Your task to perform on an android device: Find coffee shops on Maps Image 0: 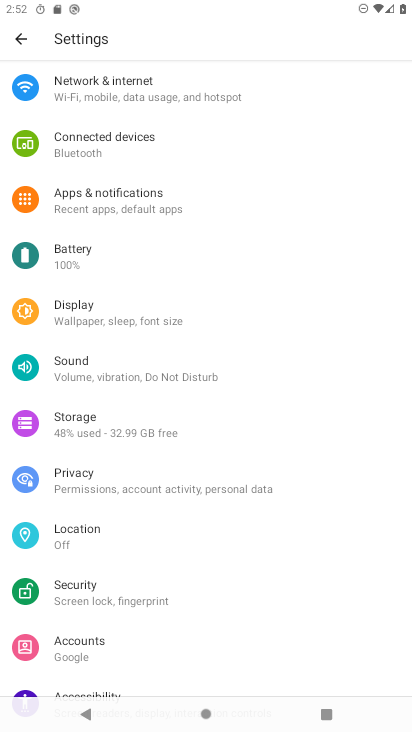
Step 0: click (207, 713)
Your task to perform on an android device: Find coffee shops on Maps Image 1: 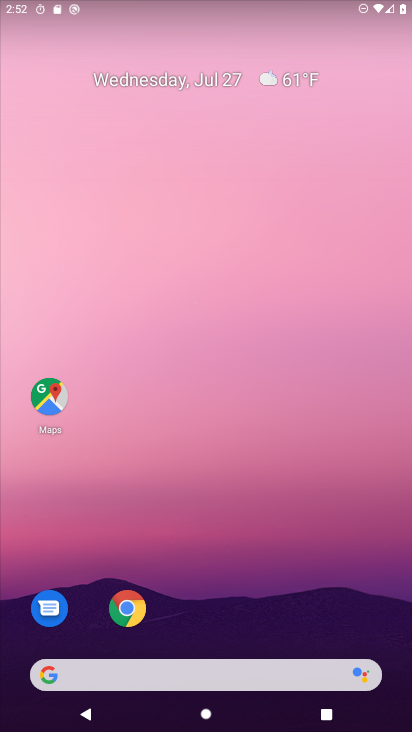
Step 1: click (55, 398)
Your task to perform on an android device: Find coffee shops on Maps Image 2: 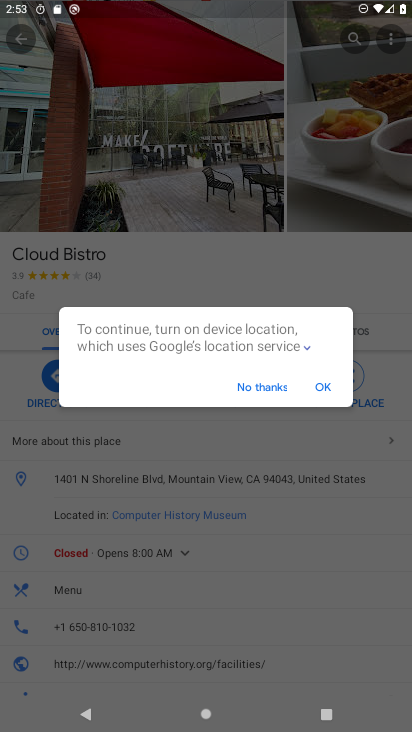
Step 2: click (272, 387)
Your task to perform on an android device: Find coffee shops on Maps Image 3: 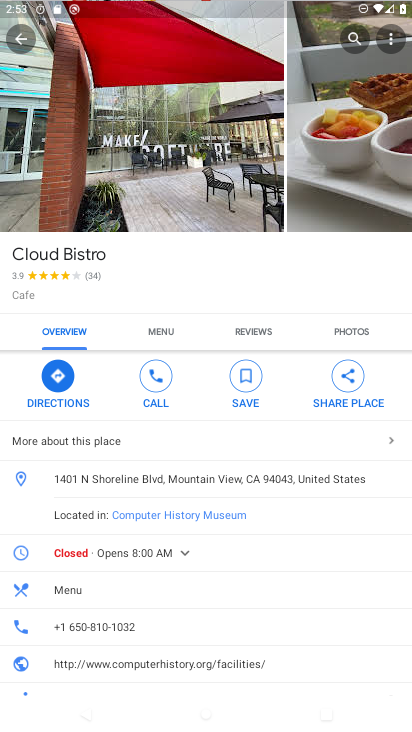
Step 3: click (15, 40)
Your task to perform on an android device: Find coffee shops on Maps Image 4: 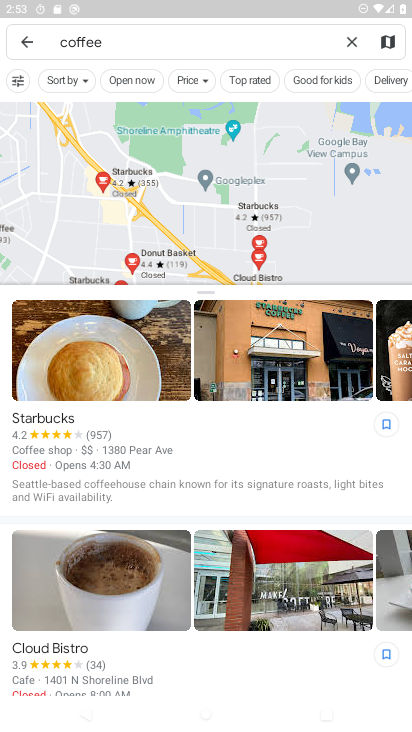
Step 4: task complete